Your task to perform on an android device: Search for vegetarian restaurants on Maps Image 0: 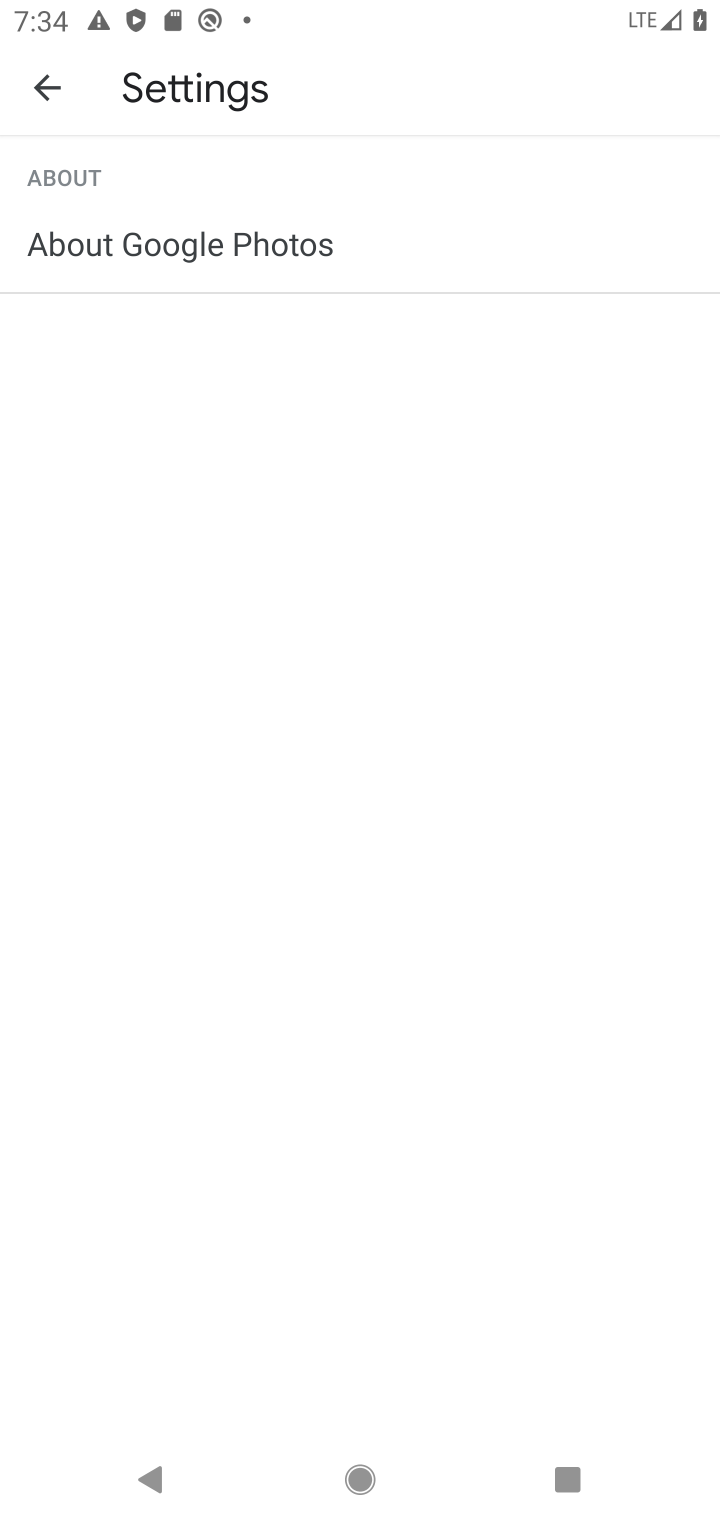
Step 0: press home button
Your task to perform on an android device: Search for vegetarian restaurants on Maps Image 1: 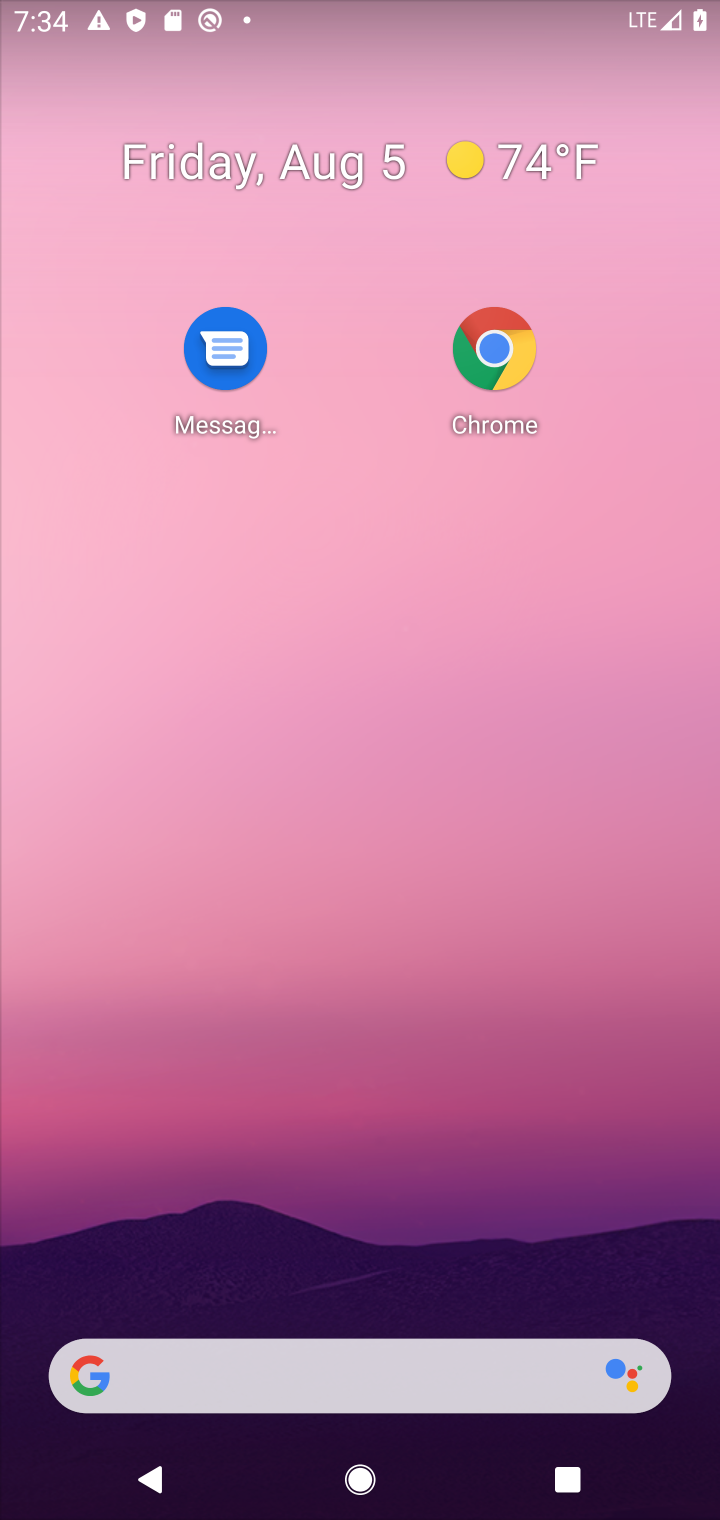
Step 1: drag from (473, 1358) to (498, 435)
Your task to perform on an android device: Search for vegetarian restaurants on Maps Image 2: 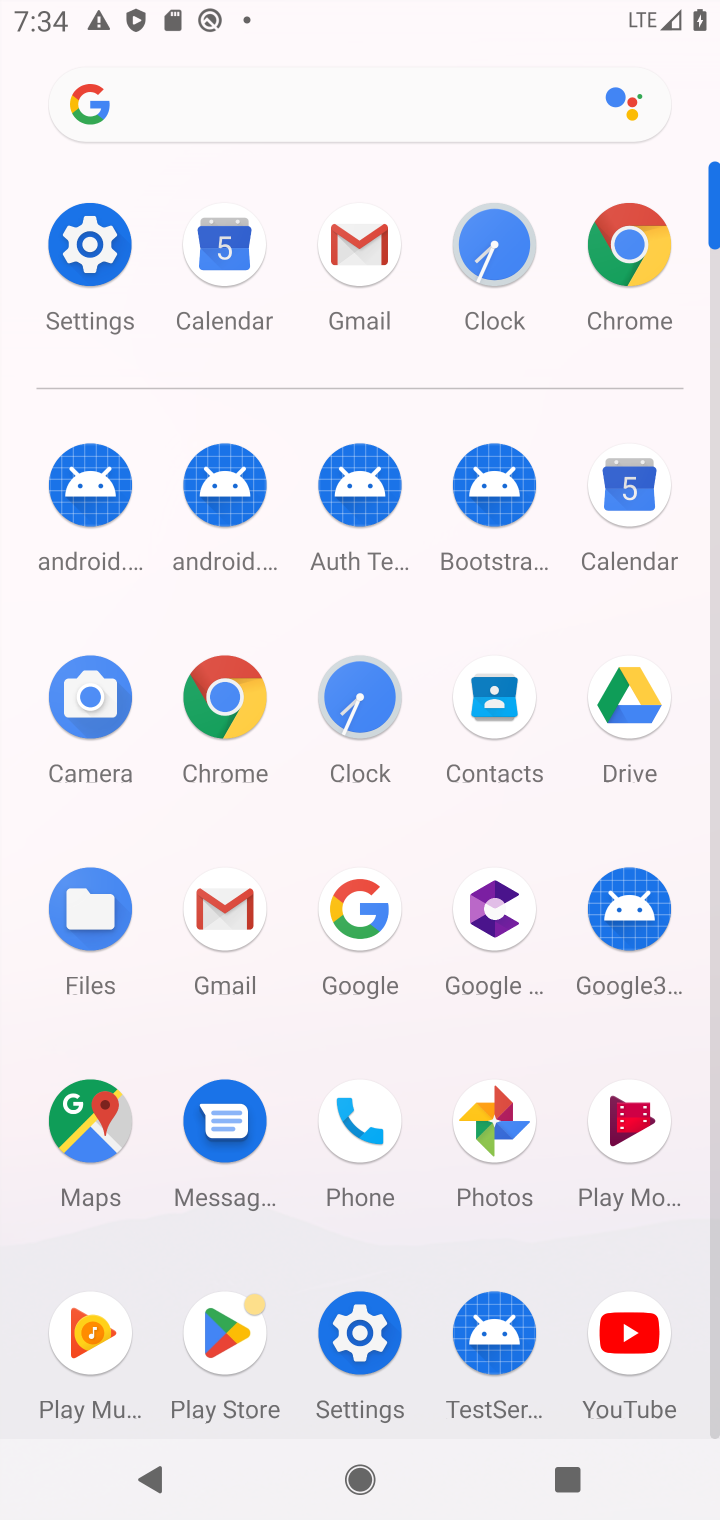
Step 2: click (92, 1134)
Your task to perform on an android device: Search for vegetarian restaurants on Maps Image 3: 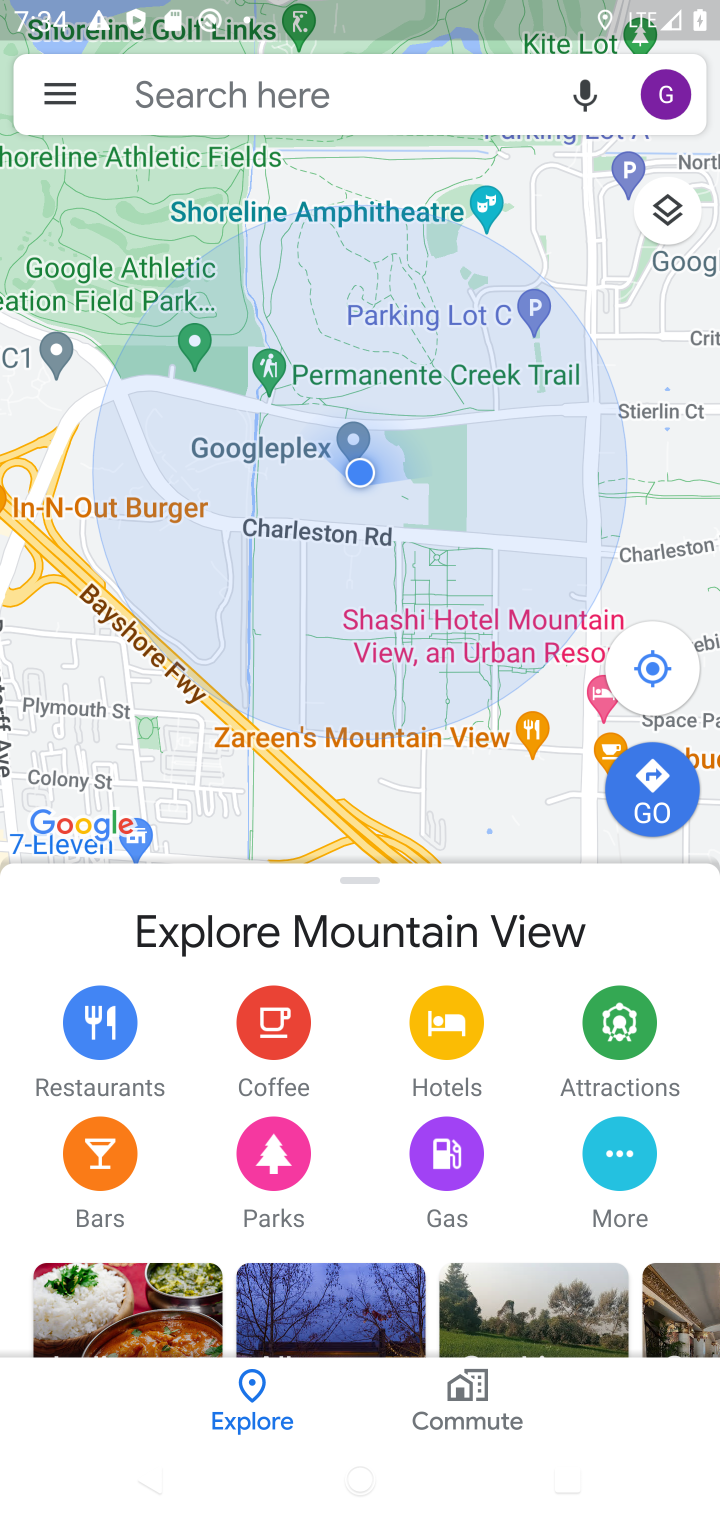
Step 3: click (168, 89)
Your task to perform on an android device: Search for vegetarian restaurants on Maps Image 4: 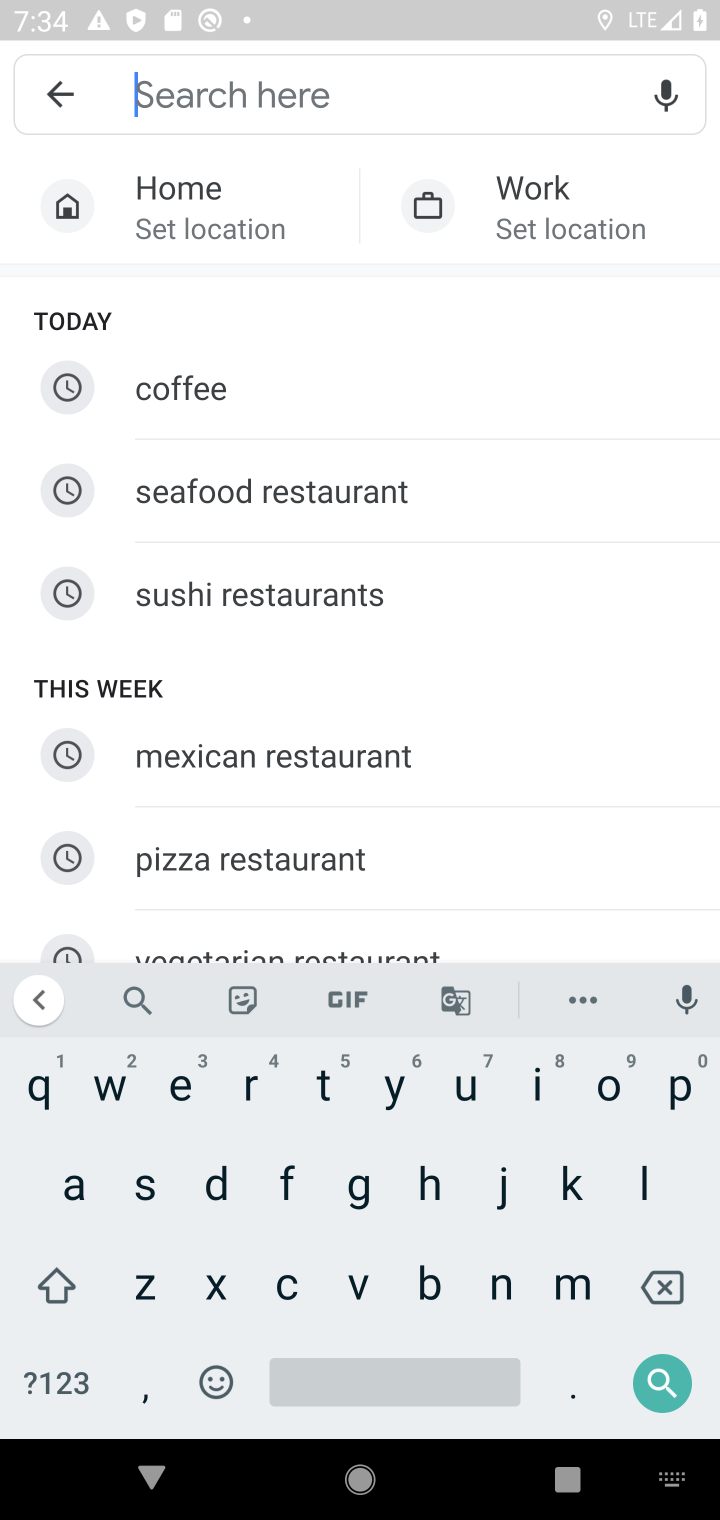
Step 4: click (286, 948)
Your task to perform on an android device: Search for vegetarian restaurants on Maps Image 5: 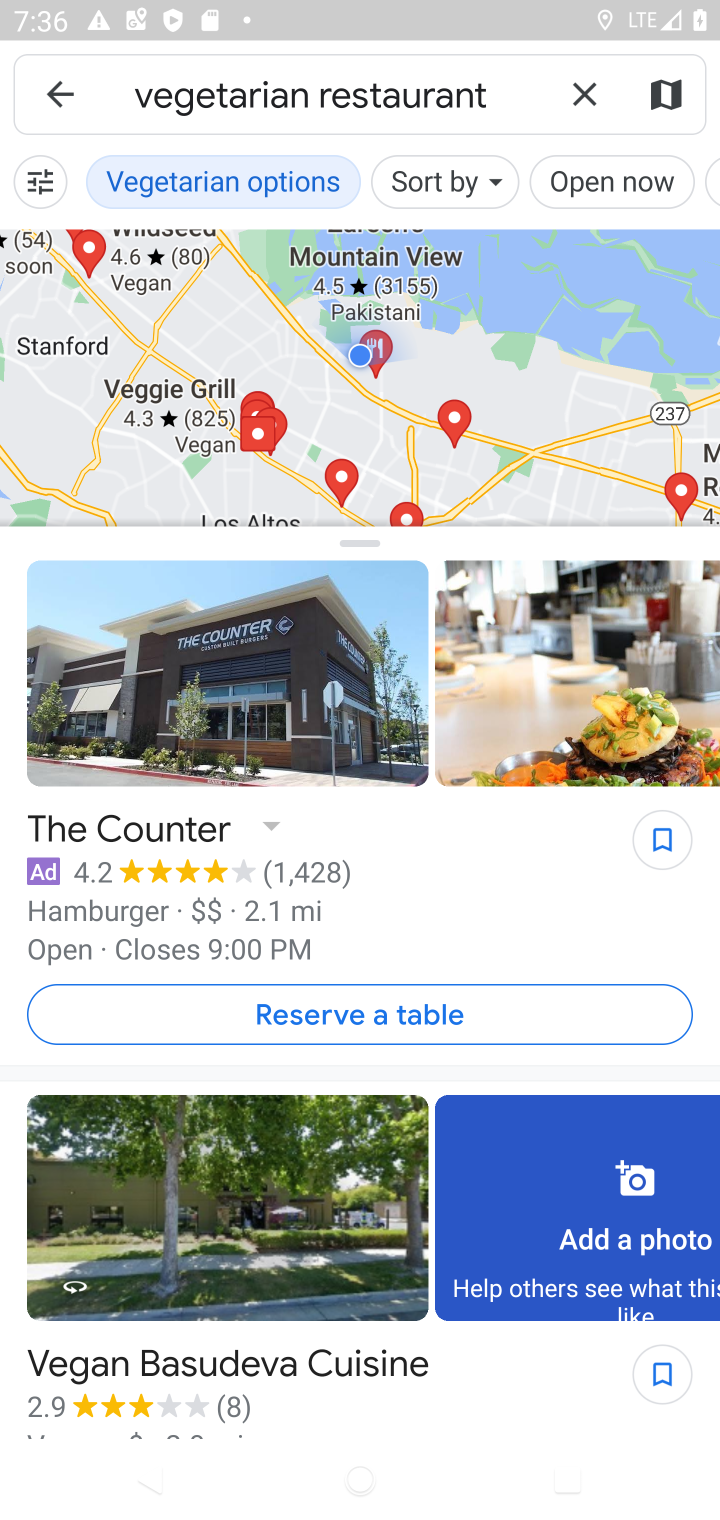
Step 5: task complete